Your task to perform on an android device: Open battery settings Image 0: 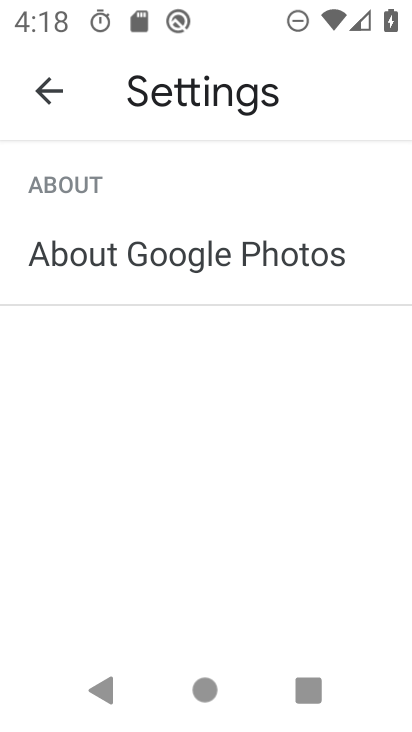
Step 0: press home button
Your task to perform on an android device: Open battery settings Image 1: 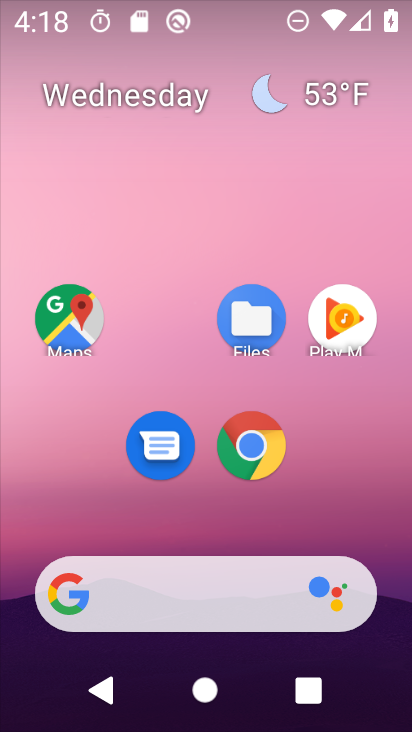
Step 1: drag from (334, 484) to (272, 0)
Your task to perform on an android device: Open battery settings Image 2: 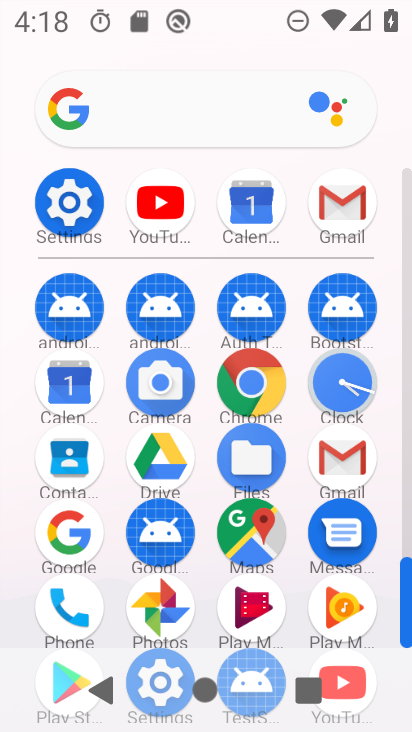
Step 2: click (53, 211)
Your task to perform on an android device: Open battery settings Image 3: 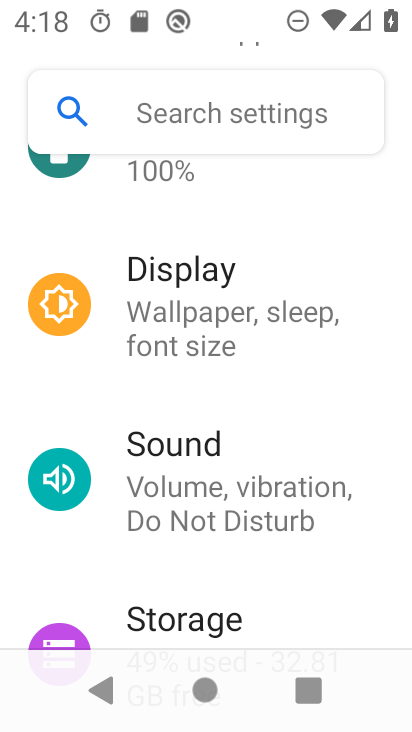
Step 3: drag from (161, 185) to (183, 452)
Your task to perform on an android device: Open battery settings Image 4: 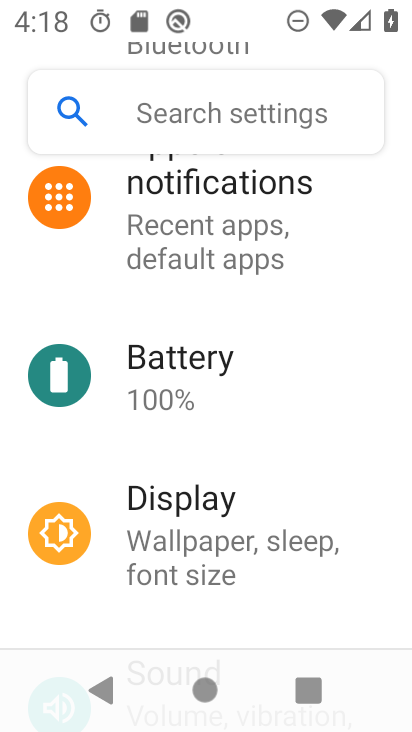
Step 4: click (189, 354)
Your task to perform on an android device: Open battery settings Image 5: 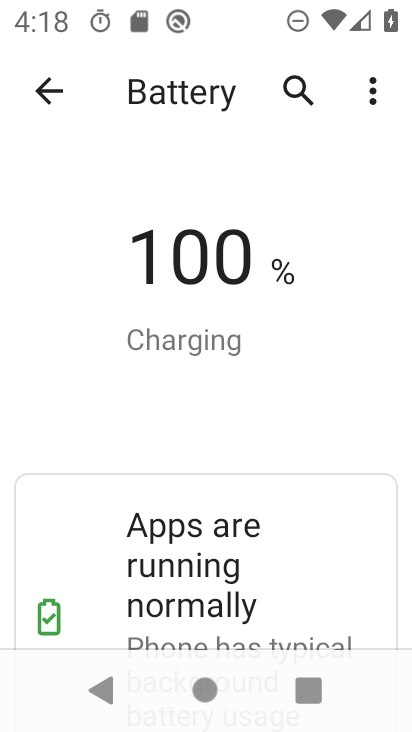
Step 5: task complete